Your task to perform on an android device: check battery use Image 0: 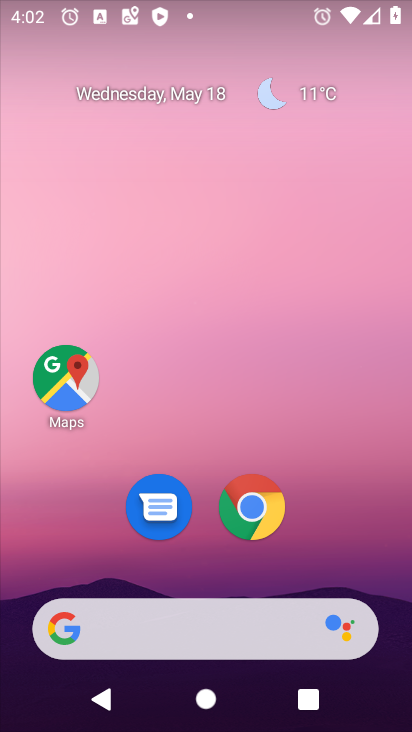
Step 0: drag from (372, 590) to (282, 8)
Your task to perform on an android device: check battery use Image 1: 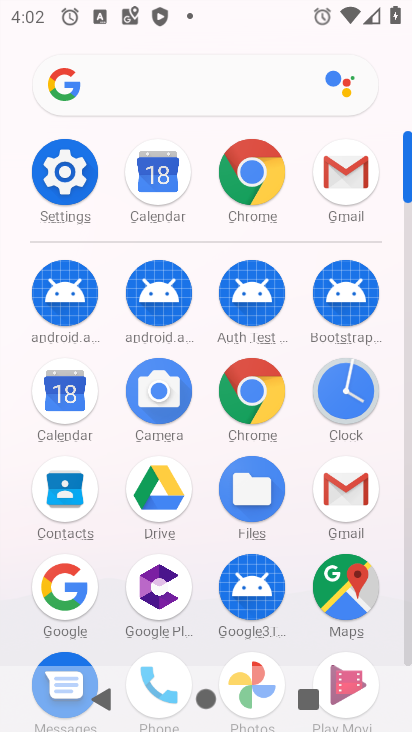
Step 1: click (406, 648)
Your task to perform on an android device: check battery use Image 2: 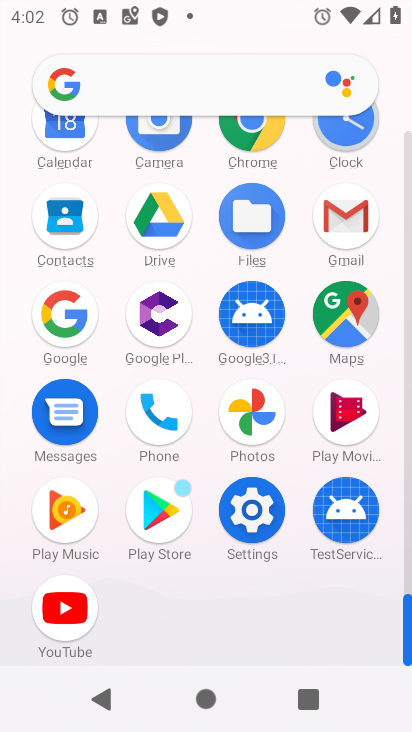
Step 2: click (254, 505)
Your task to perform on an android device: check battery use Image 3: 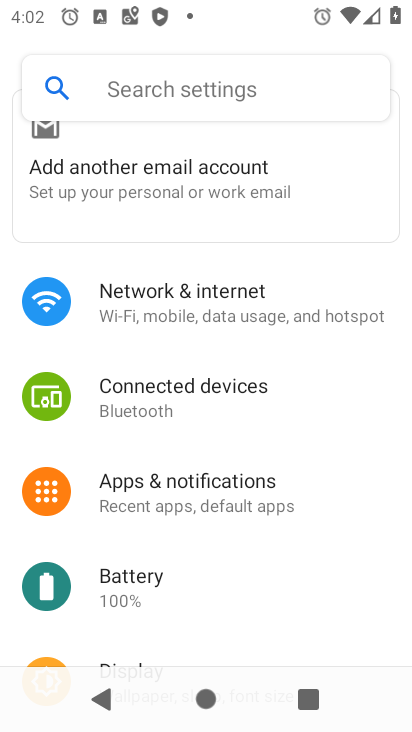
Step 3: click (133, 586)
Your task to perform on an android device: check battery use Image 4: 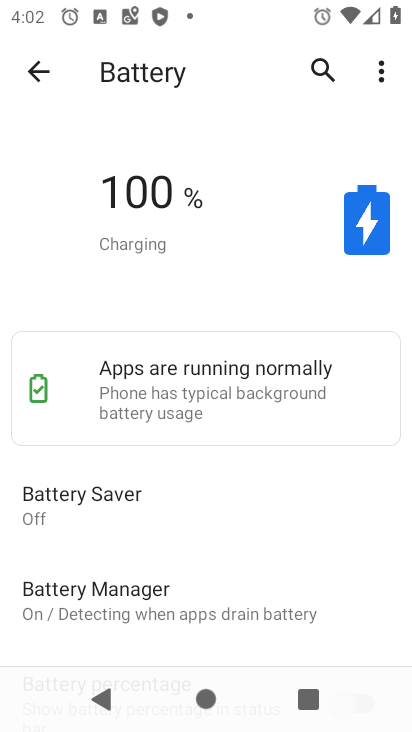
Step 4: drag from (281, 604) to (271, 156)
Your task to perform on an android device: check battery use Image 5: 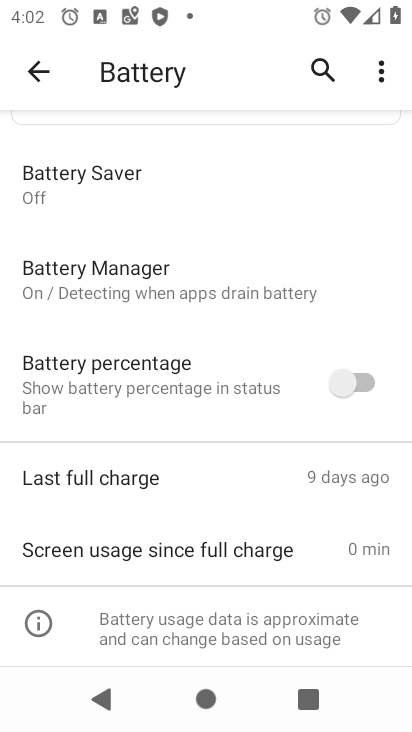
Step 5: drag from (268, 396) to (263, 283)
Your task to perform on an android device: check battery use Image 6: 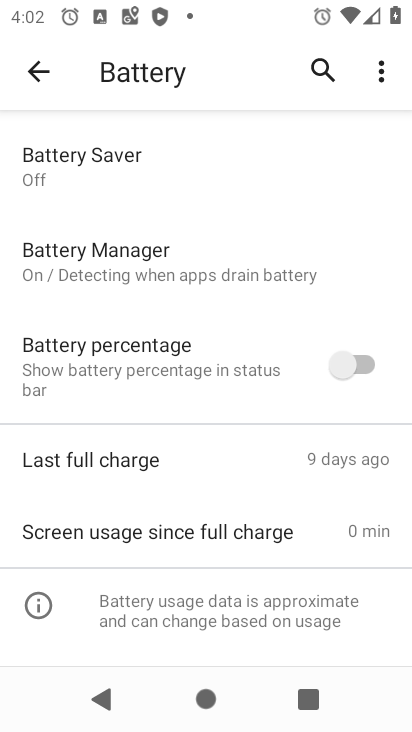
Step 6: click (385, 74)
Your task to perform on an android device: check battery use Image 7: 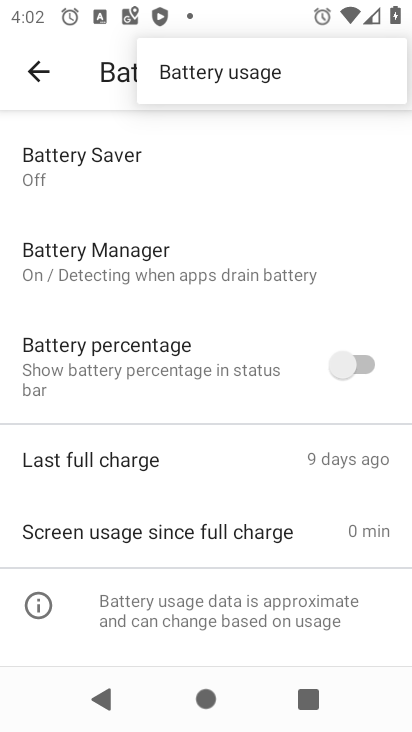
Step 7: click (220, 71)
Your task to perform on an android device: check battery use Image 8: 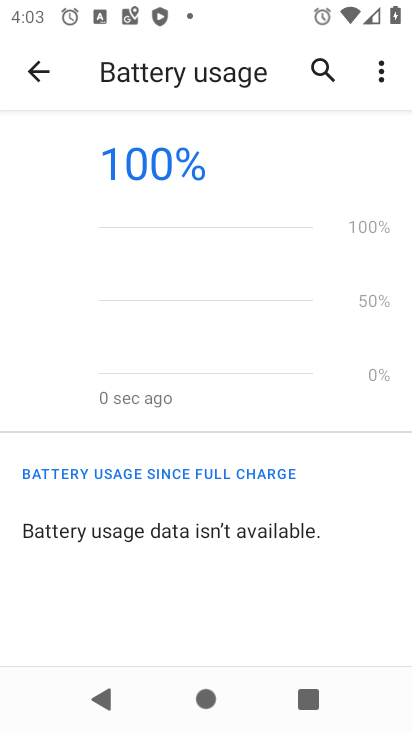
Step 8: task complete